Your task to perform on an android device: toggle notifications settings in the gmail app Image 0: 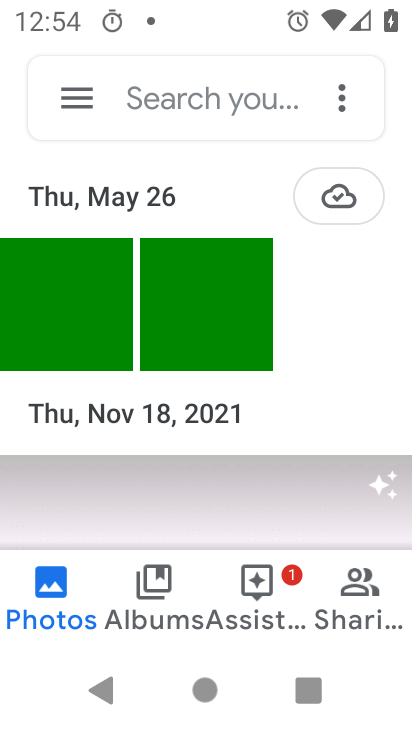
Step 0: press home button
Your task to perform on an android device: toggle notifications settings in the gmail app Image 1: 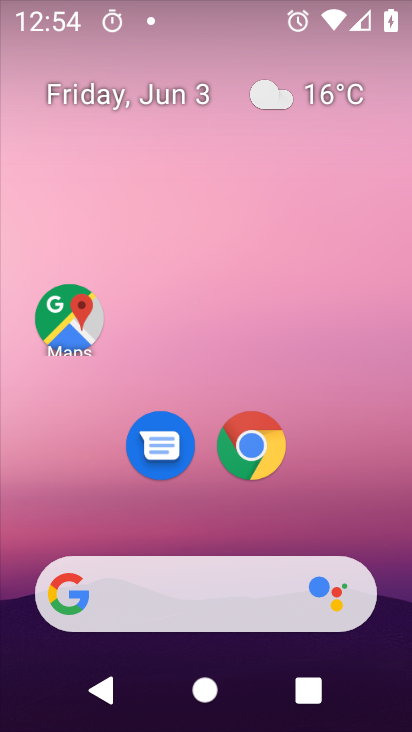
Step 1: drag from (204, 527) to (187, 172)
Your task to perform on an android device: toggle notifications settings in the gmail app Image 2: 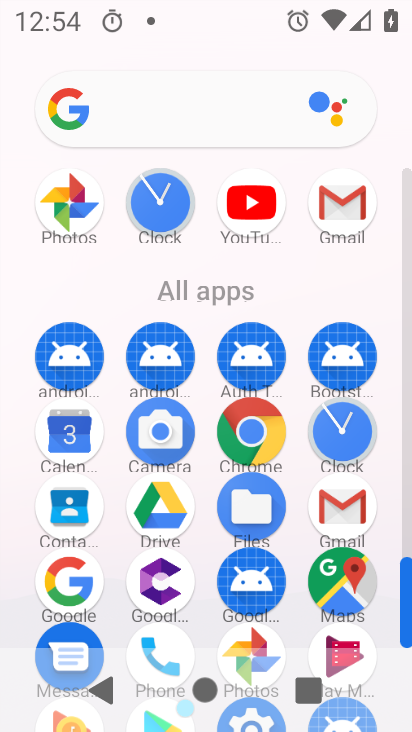
Step 2: click (347, 214)
Your task to perform on an android device: toggle notifications settings in the gmail app Image 3: 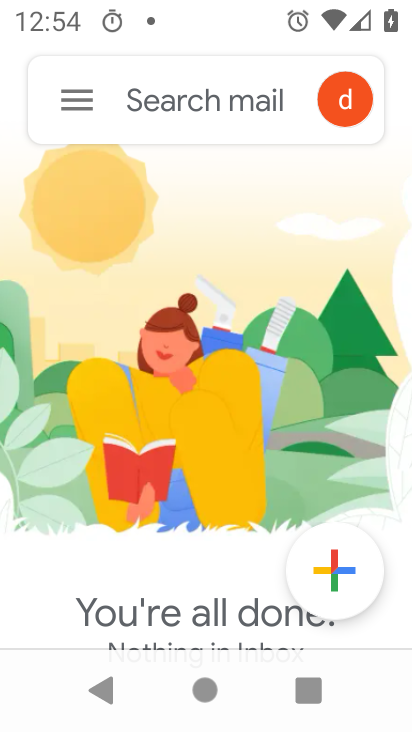
Step 3: click (62, 106)
Your task to perform on an android device: toggle notifications settings in the gmail app Image 4: 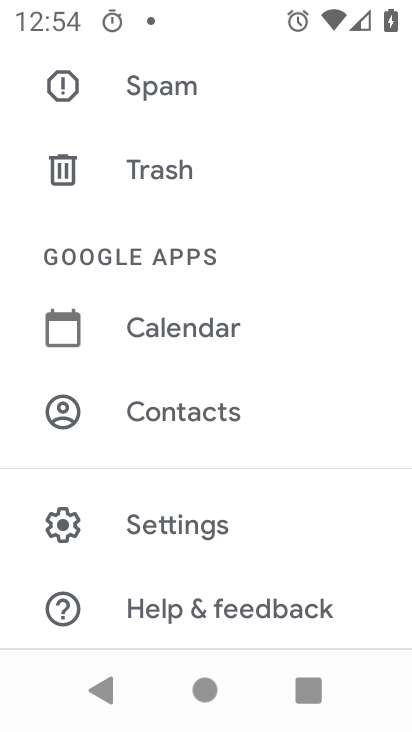
Step 4: click (184, 531)
Your task to perform on an android device: toggle notifications settings in the gmail app Image 5: 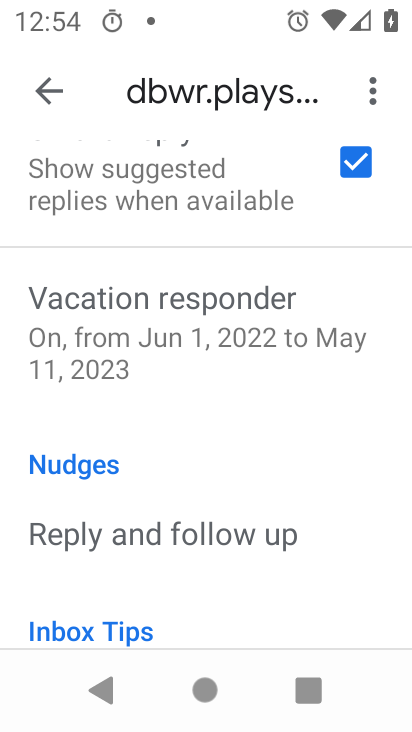
Step 5: drag from (183, 218) to (236, 684)
Your task to perform on an android device: toggle notifications settings in the gmail app Image 6: 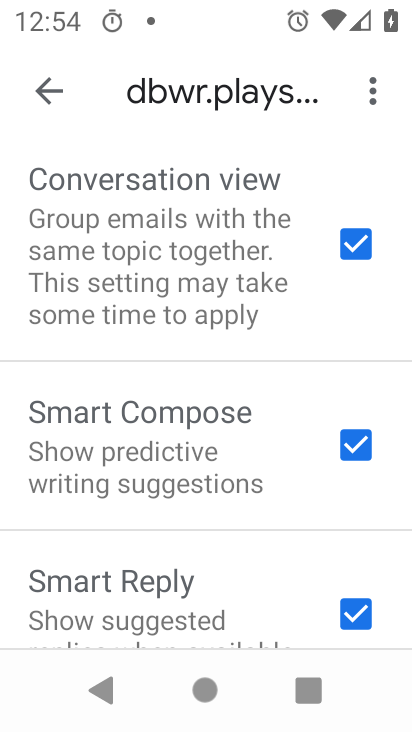
Step 6: drag from (138, 197) to (162, 554)
Your task to perform on an android device: toggle notifications settings in the gmail app Image 7: 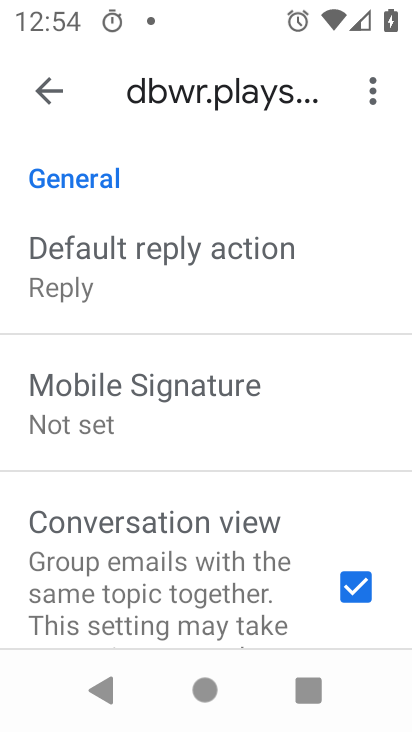
Step 7: drag from (174, 188) to (267, 506)
Your task to perform on an android device: toggle notifications settings in the gmail app Image 8: 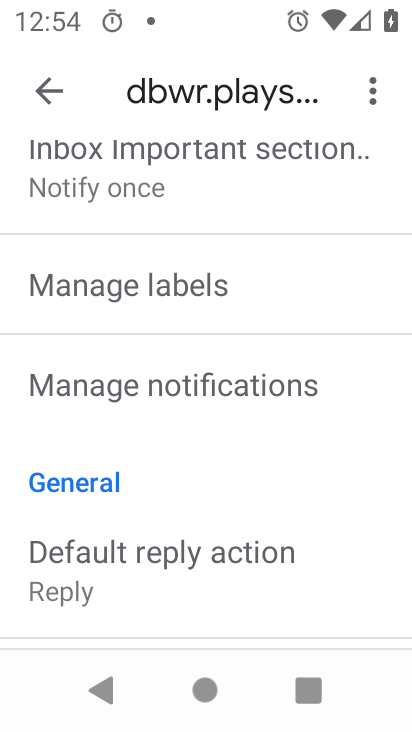
Step 8: drag from (113, 194) to (145, 567)
Your task to perform on an android device: toggle notifications settings in the gmail app Image 9: 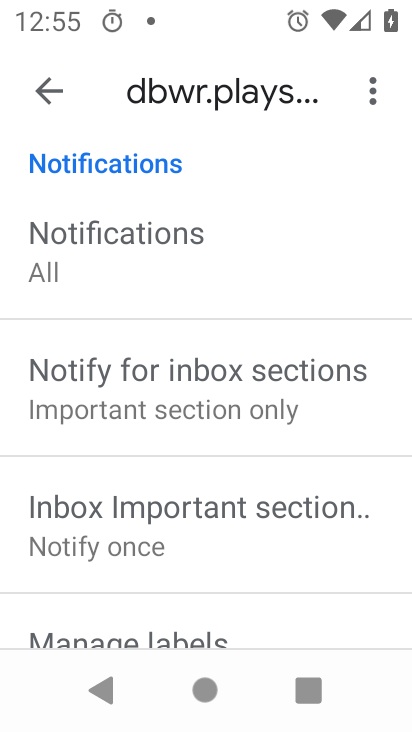
Step 9: click (126, 272)
Your task to perform on an android device: toggle notifications settings in the gmail app Image 10: 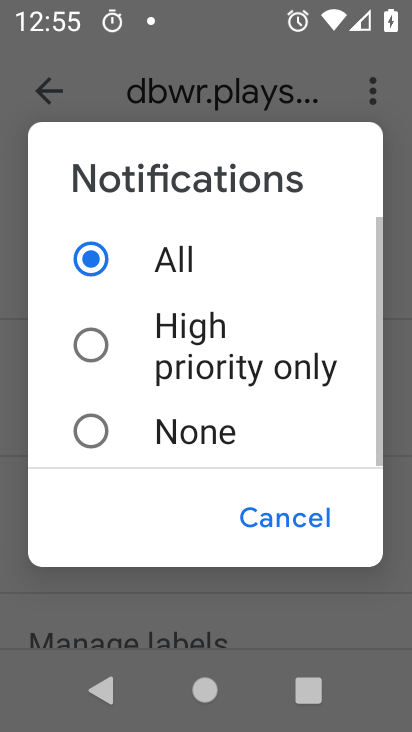
Step 10: click (168, 318)
Your task to perform on an android device: toggle notifications settings in the gmail app Image 11: 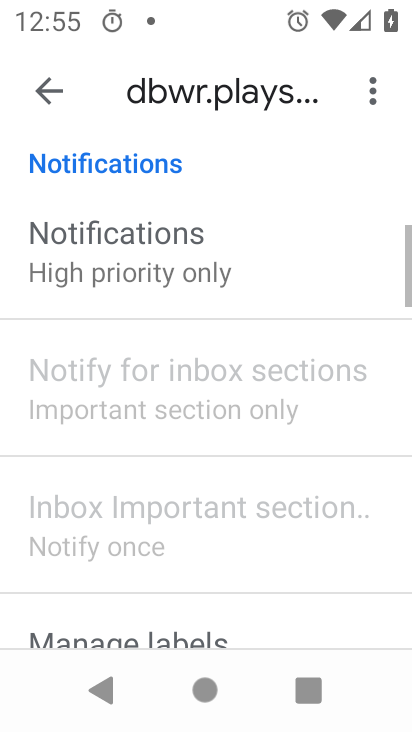
Step 11: task complete